Your task to perform on an android device: Open calendar and show me the third week of next month Image 0: 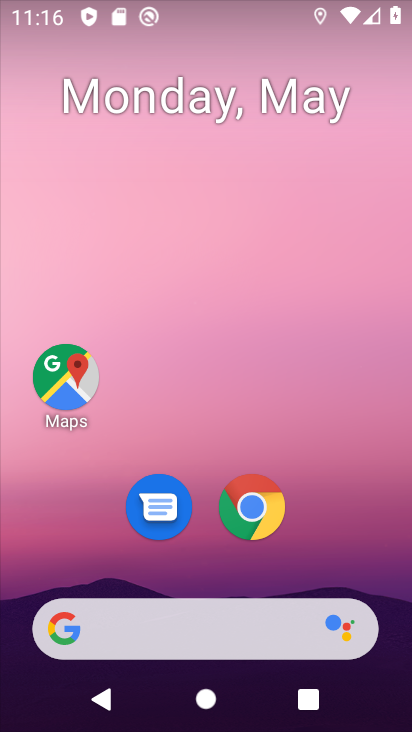
Step 0: drag from (391, 606) to (295, 70)
Your task to perform on an android device: Open calendar and show me the third week of next month Image 1: 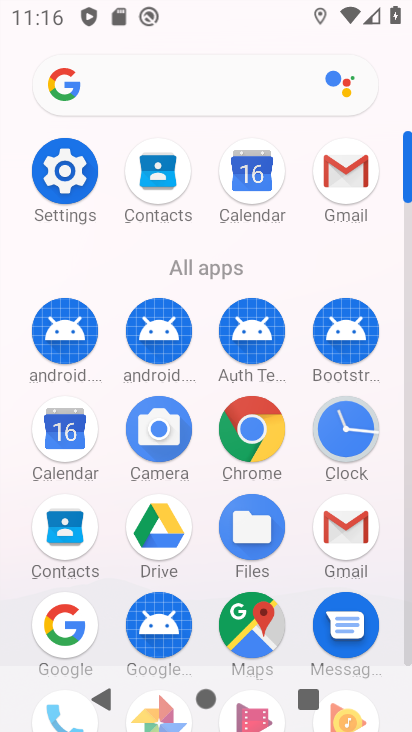
Step 1: click (255, 203)
Your task to perform on an android device: Open calendar and show me the third week of next month Image 2: 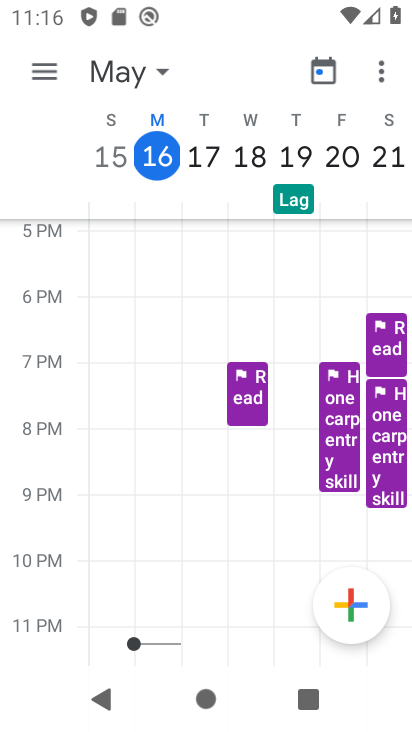
Step 2: click (164, 77)
Your task to perform on an android device: Open calendar and show me the third week of next month Image 3: 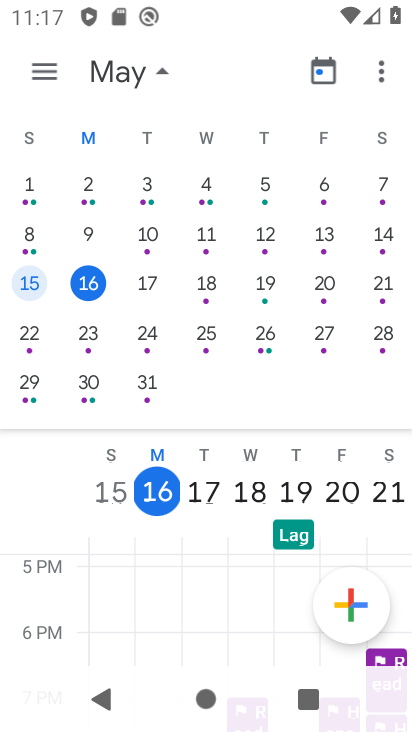
Step 3: drag from (403, 306) to (13, 325)
Your task to perform on an android device: Open calendar and show me the third week of next month Image 4: 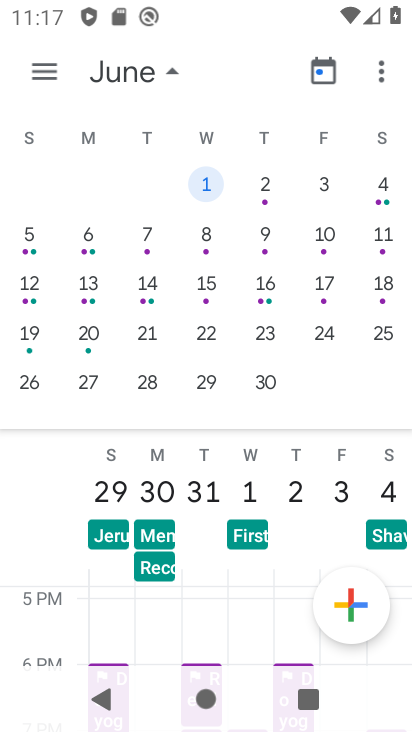
Step 4: click (144, 290)
Your task to perform on an android device: Open calendar and show me the third week of next month Image 5: 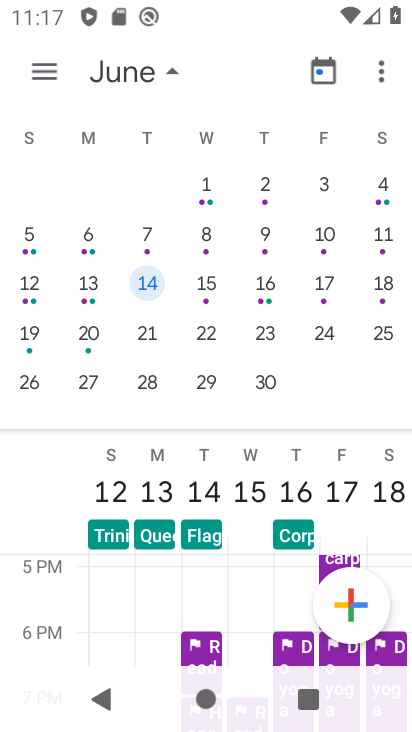
Step 5: click (166, 81)
Your task to perform on an android device: Open calendar and show me the third week of next month Image 6: 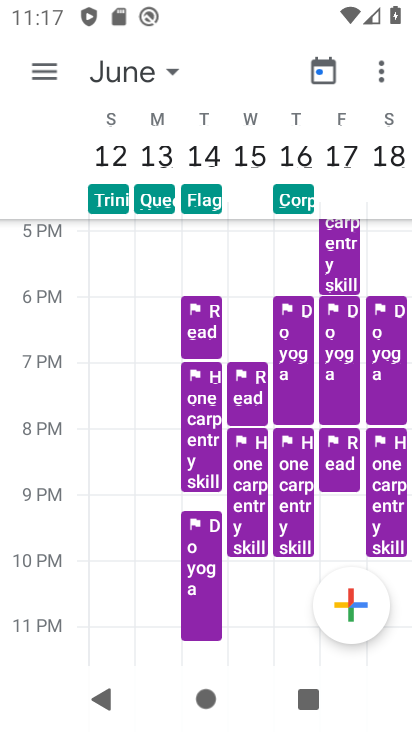
Step 6: task complete